Your task to perform on an android device: turn off location Image 0: 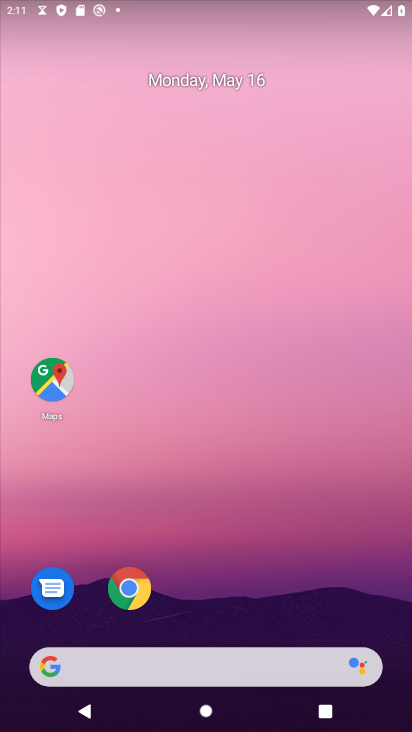
Step 0: drag from (229, 722) to (228, 140)
Your task to perform on an android device: turn off location Image 1: 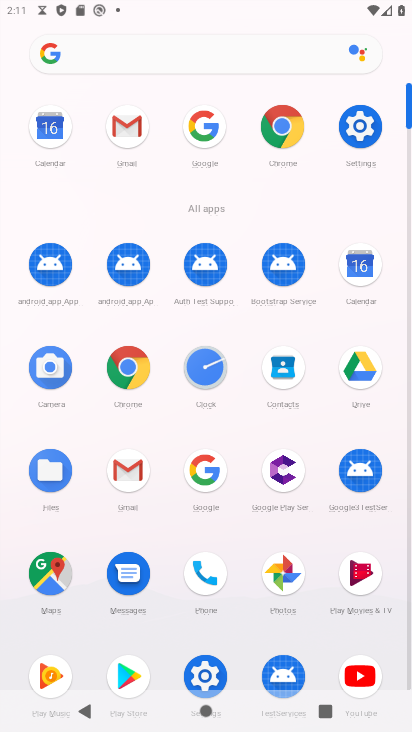
Step 1: click (354, 121)
Your task to perform on an android device: turn off location Image 2: 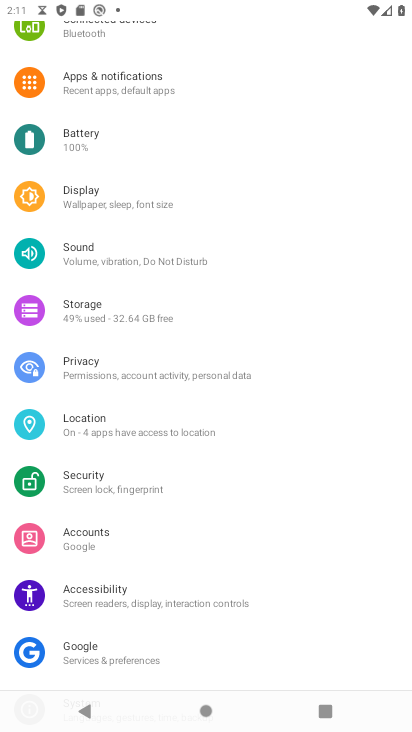
Step 2: click (98, 427)
Your task to perform on an android device: turn off location Image 3: 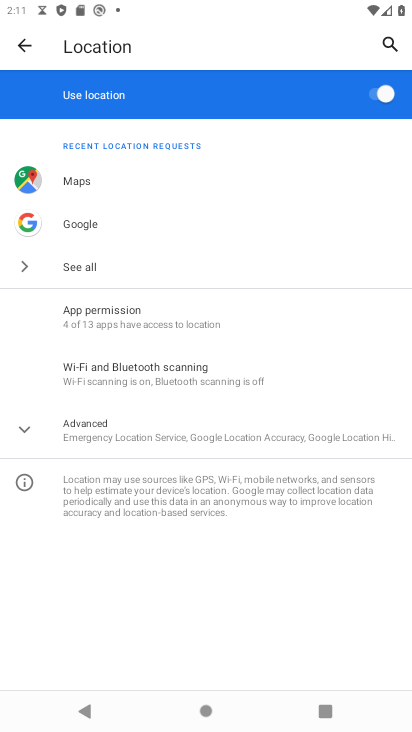
Step 3: click (371, 88)
Your task to perform on an android device: turn off location Image 4: 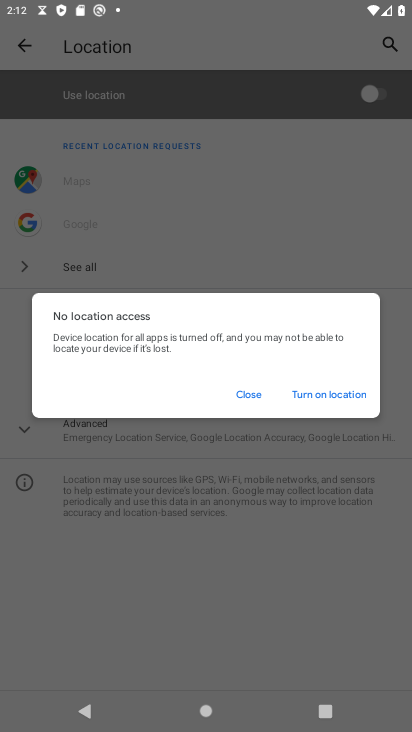
Step 4: click (246, 396)
Your task to perform on an android device: turn off location Image 5: 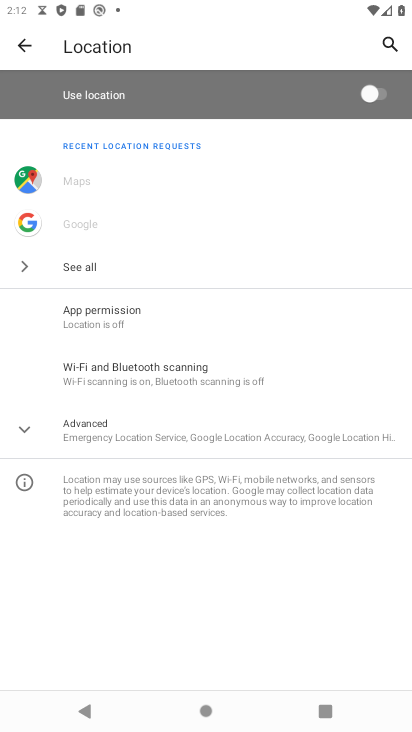
Step 5: task complete